Your task to perform on an android device: Open Maps and search for coffee Image 0: 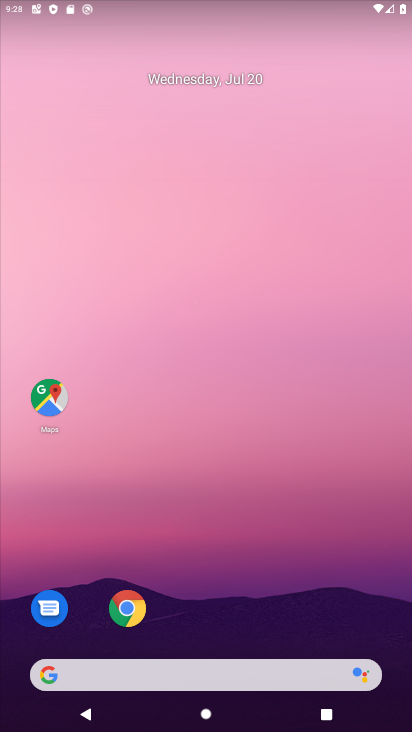
Step 0: click (47, 392)
Your task to perform on an android device: Open Maps and search for coffee Image 1: 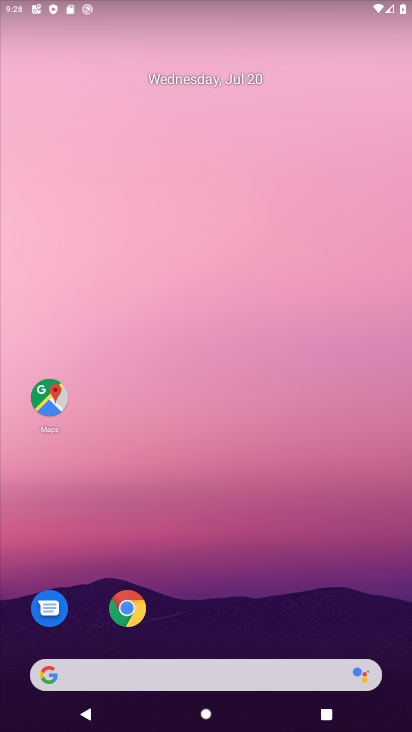
Step 1: click (47, 392)
Your task to perform on an android device: Open Maps and search for coffee Image 2: 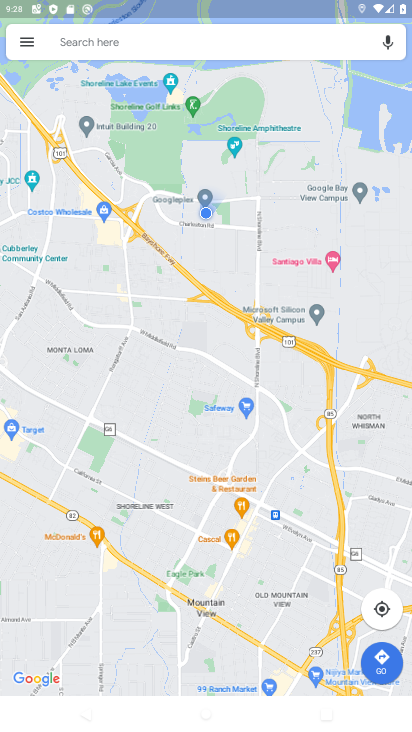
Step 2: click (204, 47)
Your task to perform on an android device: Open Maps and search for coffee Image 3: 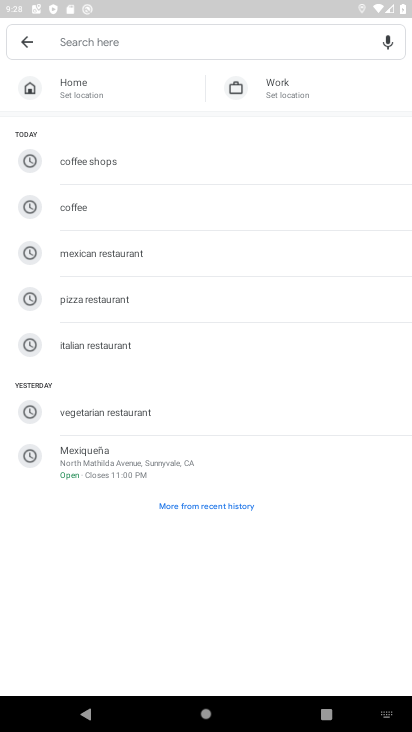
Step 3: click (81, 200)
Your task to perform on an android device: Open Maps and search for coffee Image 4: 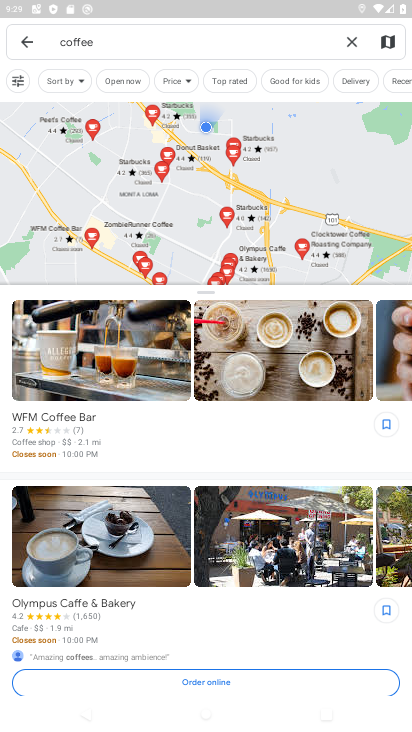
Step 4: task complete